Your task to perform on an android device: add a contact Image 0: 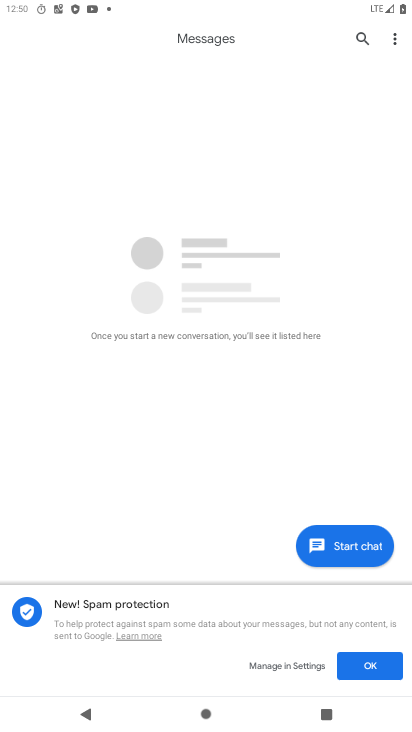
Step 0: press home button
Your task to perform on an android device: add a contact Image 1: 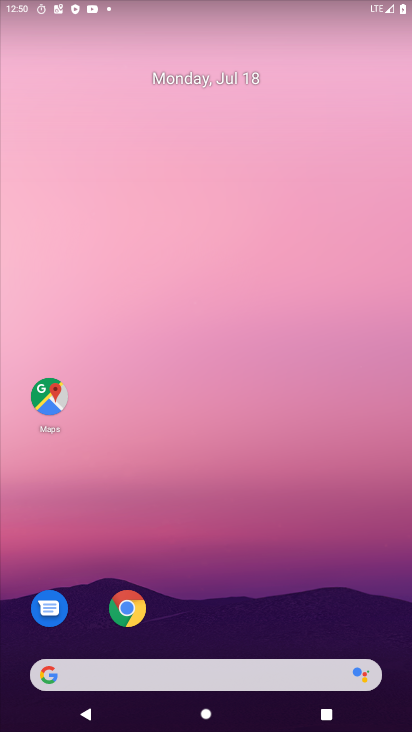
Step 1: drag from (360, 513) to (277, 3)
Your task to perform on an android device: add a contact Image 2: 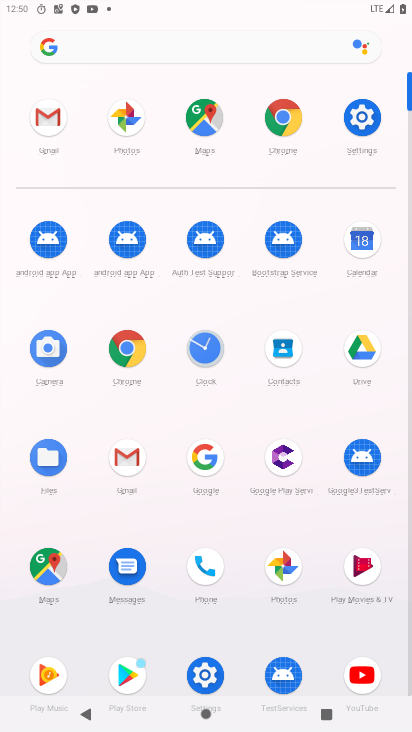
Step 2: click (197, 573)
Your task to perform on an android device: add a contact Image 3: 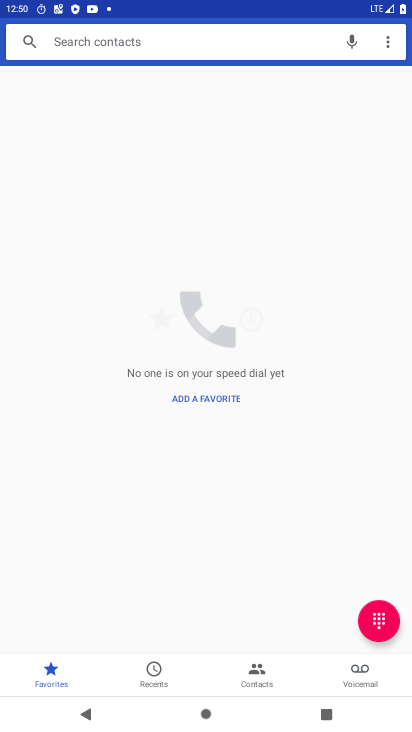
Step 3: click (280, 670)
Your task to perform on an android device: add a contact Image 4: 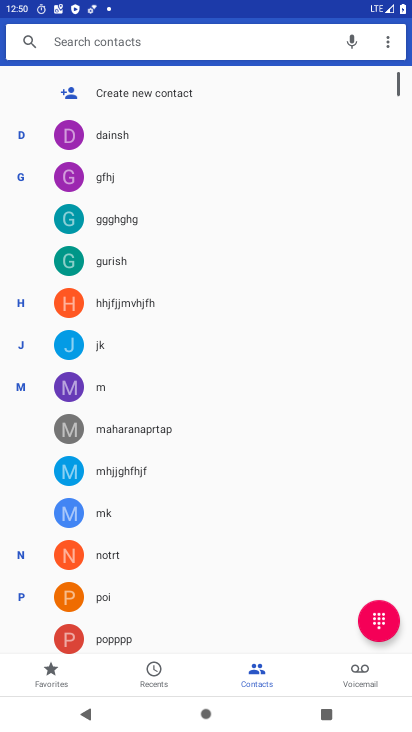
Step 4: click (130, 89)
Your task to perform on an android device: add a contact Image 5: 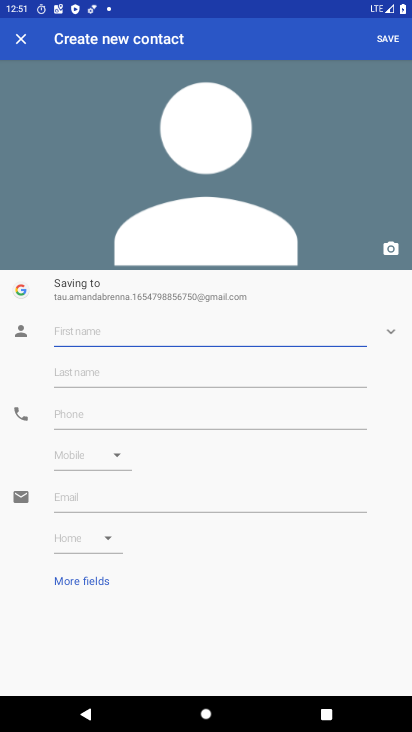
Step 5: type "ttggs"
Your task to perform on an android device: add a contact Image 6: 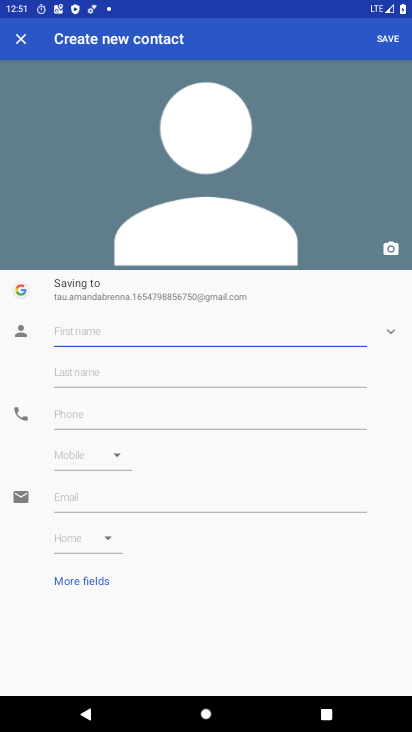
Step 6: click (123, 421)
Your task to perform on an android device: add a contact Image 7: 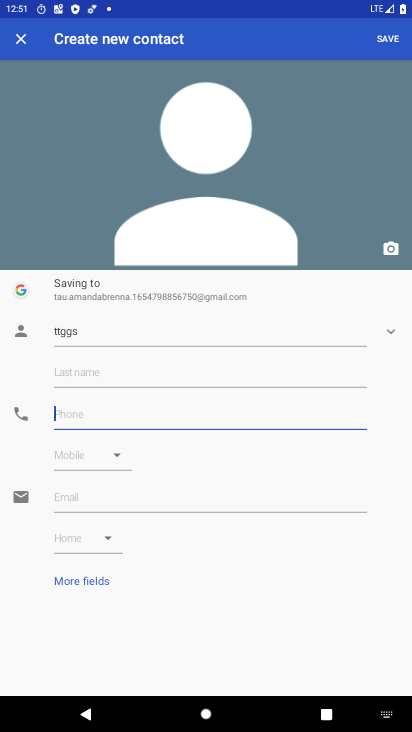
Step 7: type "45678998765"
Your task to perform on an android device: add a contact Image 8: 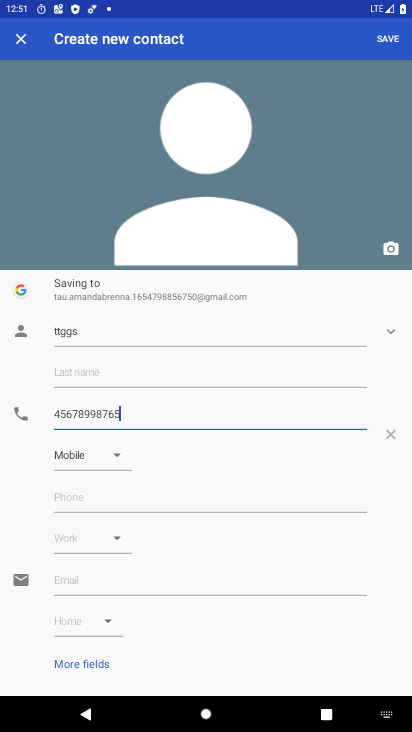
Step 8: click (381, 44)
Your task to perform on an android device: add a contact Image 9: 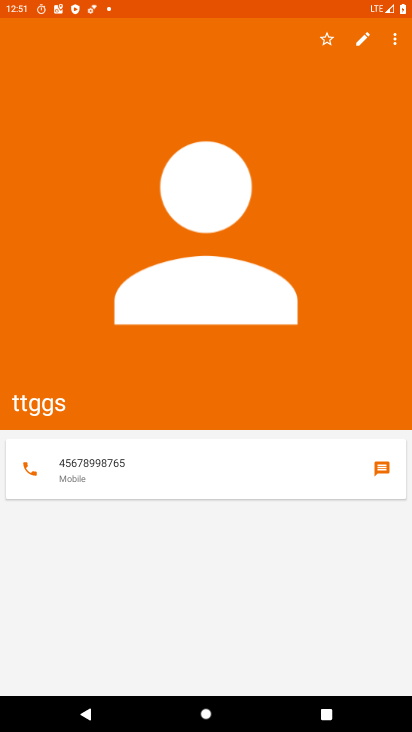
Step 9: task complete